Your task to perform on an android device: change the clock display to show seconds Image 0: 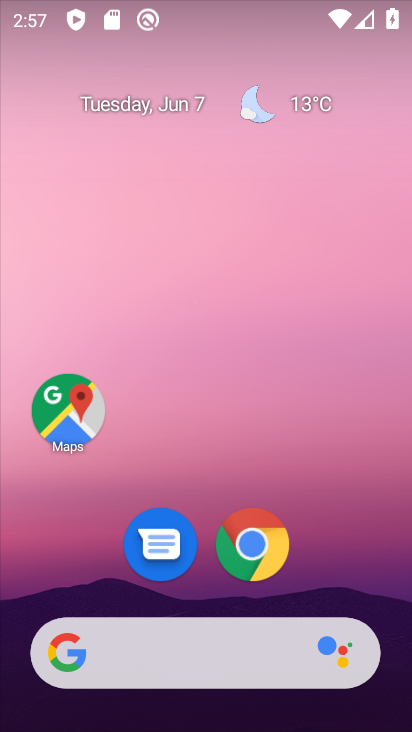
Step 0: drag from (208, 551) to (225, 60)
Your task to perform on an android device: change the clock display to show seconds Image 1: 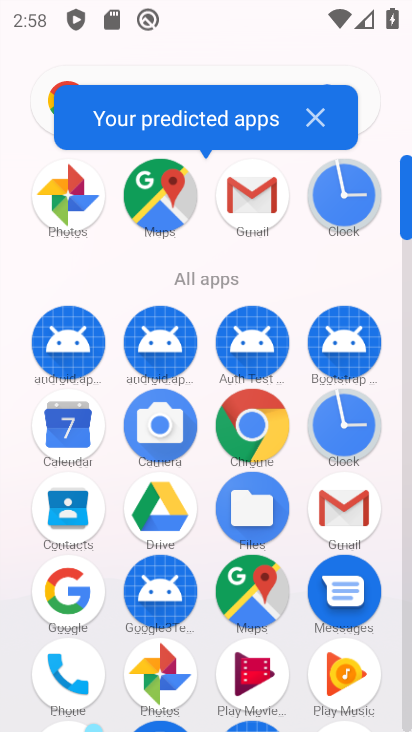
Step 1: click (340, 415)
Your task to perform on an android device: change the clock display to show seconds Image 2: 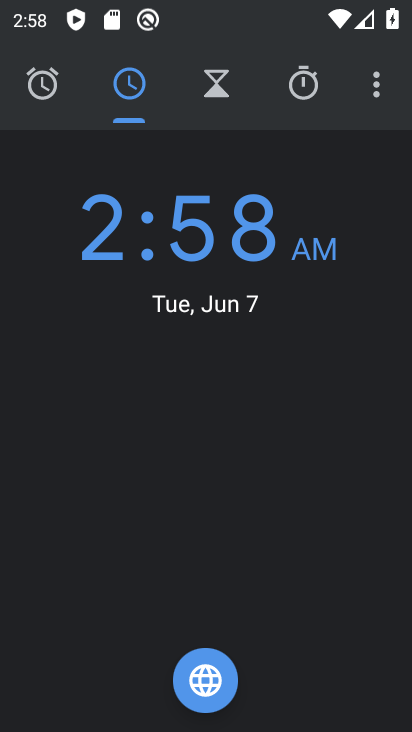
Step 2: click (376, 73)
Your task to perform on an android device: change the clock display to show seconds Image 3: 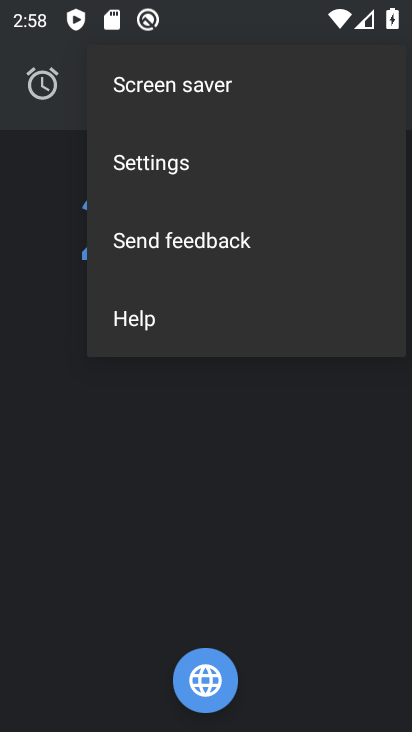
Step 3: click (208, 161)
Your task to perform on an android device: change the clock display to show seconds Image 4: 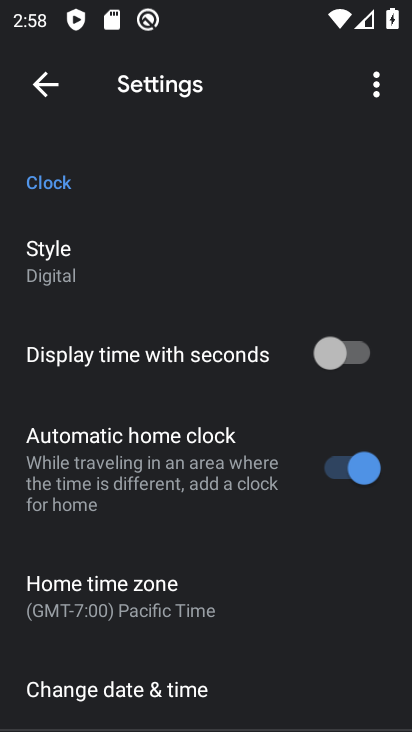
Step 4: click (354, 346)
Your task to perform on an android device: change the clock display to show seconds Image 5: 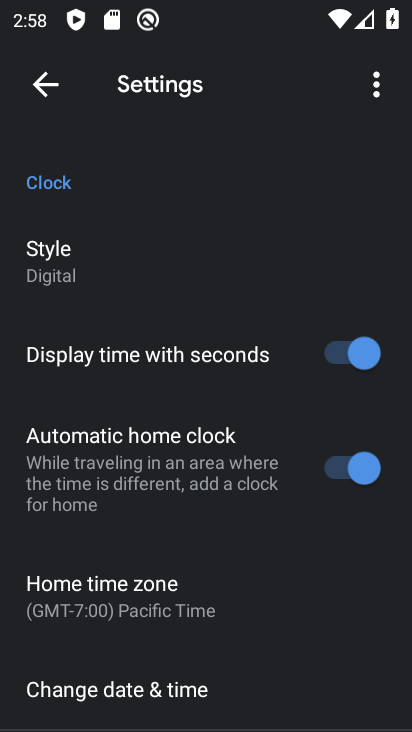
Step 5: task complete